Your task to perform on an android device: Open Reddit.com Image 0: 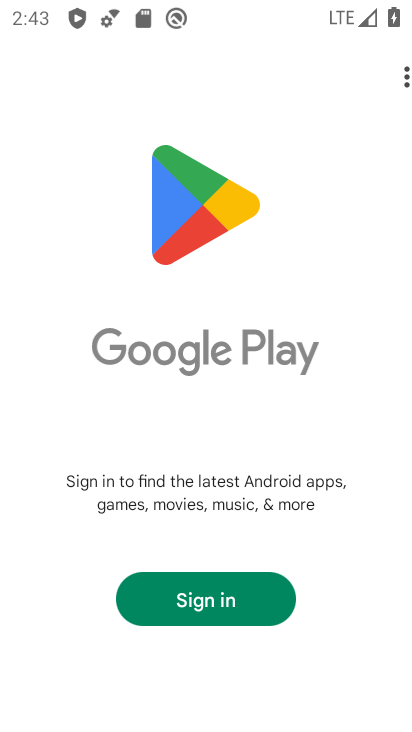
Step 0: press home button
Your task to perform on an android device: Open Reddit.com Image 1: 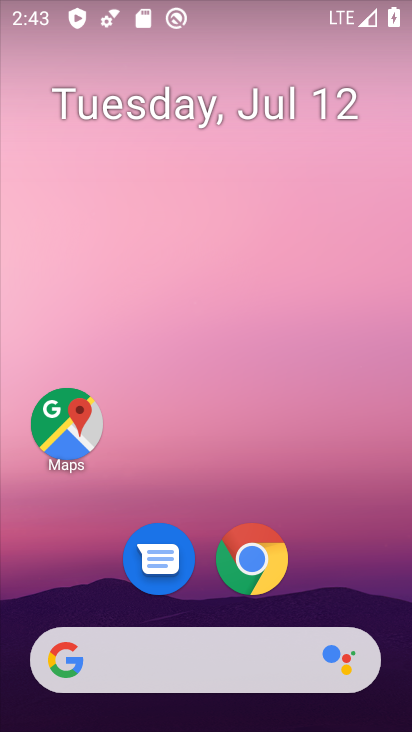
Step 1: drag from (361, 587) to (376, 137)
Your task to perform on an android device: Open Reddit.com Image 2: 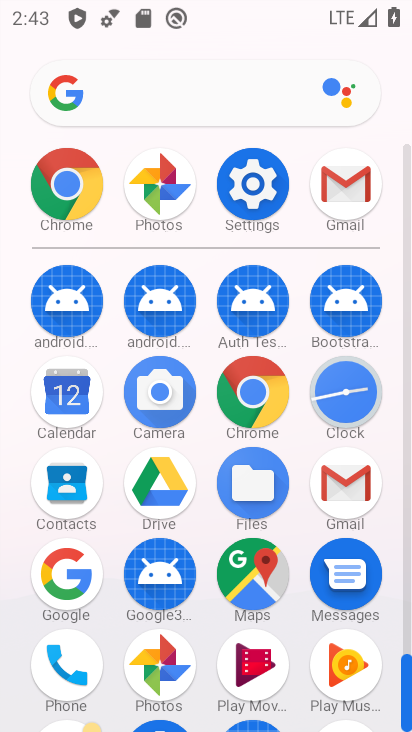
Step 2: click (263, 395)
Your task to perform on an android device: Open Reddit.com Image 3: 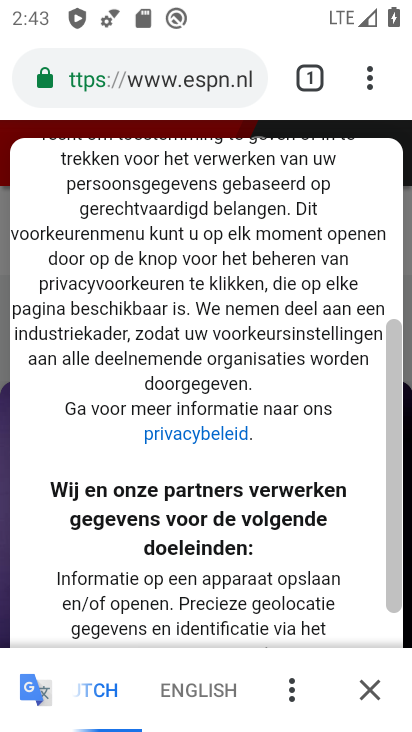
Step 3: click (201, 76)
Your task to perform on an android device: Open Reddit.com Image 4: 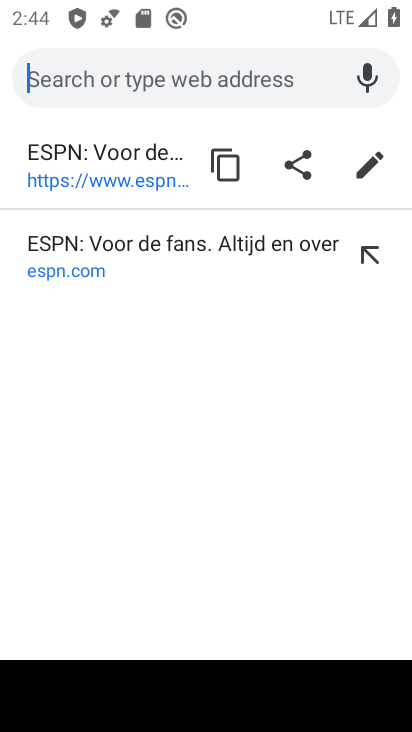
Step 4: type "reddit.com"
Your task to perform on an android device: Open Reddit.com Image 5: 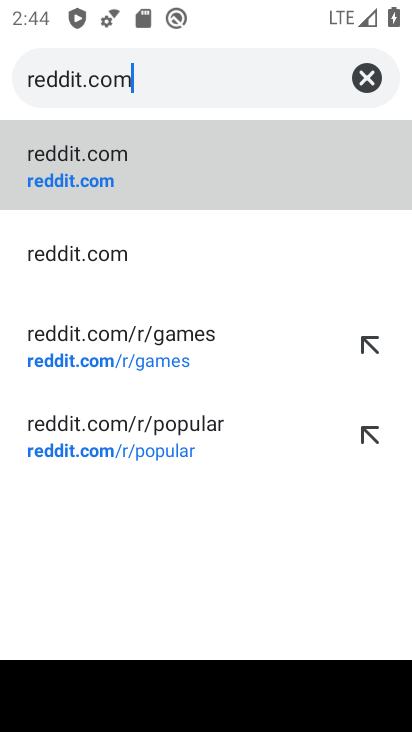
Step 5: click (184, 180)
Your task to perform on an android device: Open Reddit.com Image 6: 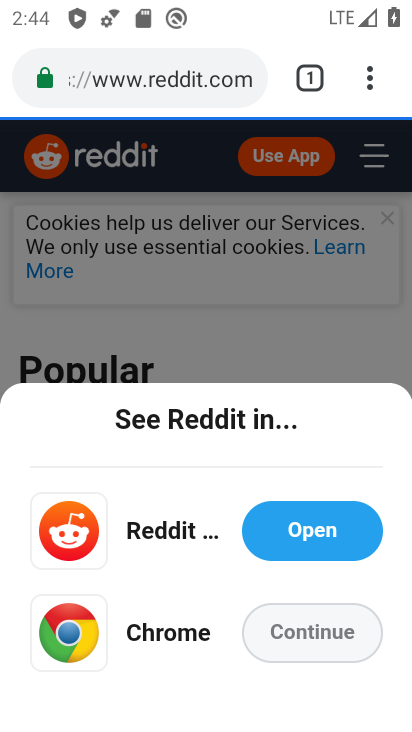
Step 6: task complete